Your task to perform on an android device: What's on my calendar tomorrow? Image 0: 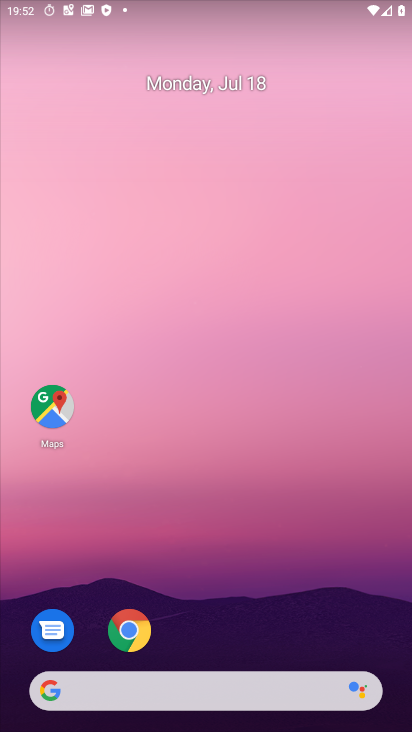
Step 0: drag from (222, 562) to (94, 56)
Your task to perform on an android device: What's on my calendar tomorrow? Image 1: 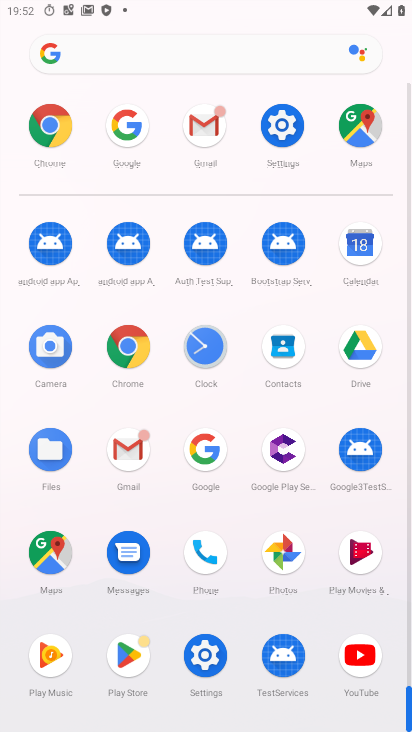
Step 1: click (360, 251)
Your task to perform on an android device: What's on my calendar tomorrow? Image 2: 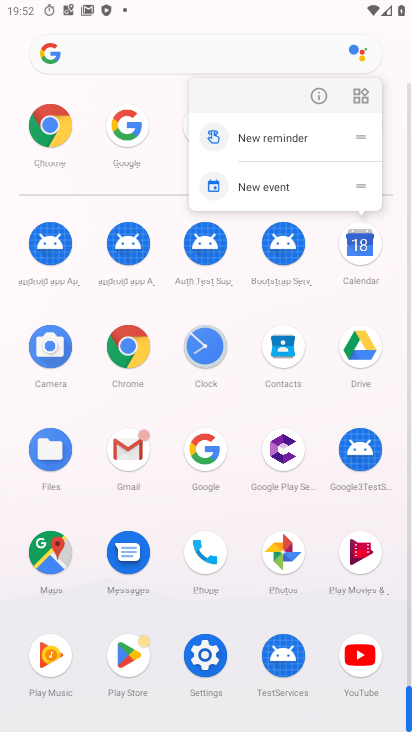
Step 2: click (360, 250)
Your task to perform on an android device: What's on my calendar tomorrow? Image 3: 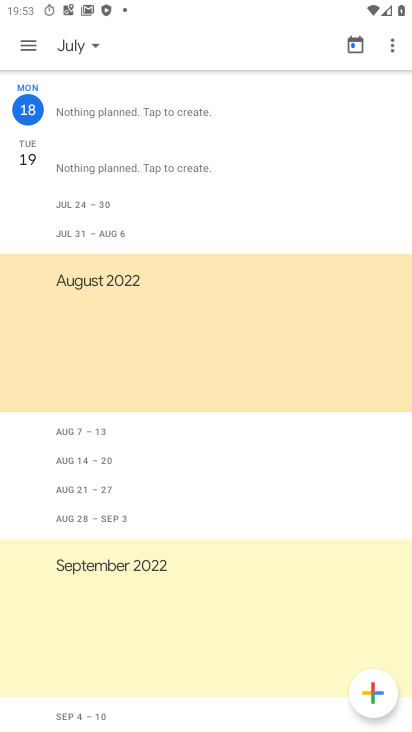
Step 3: click (69, 38)
Your task to perform on an android device: What's on my calendar tomorrow? Image 4: 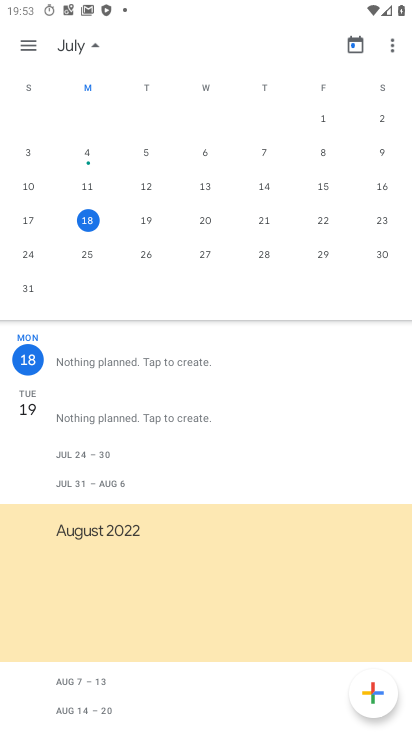
Step 4: click (145, 223)
Your task to perform on an android device: What's on my calendar tomorrow? Image 5: 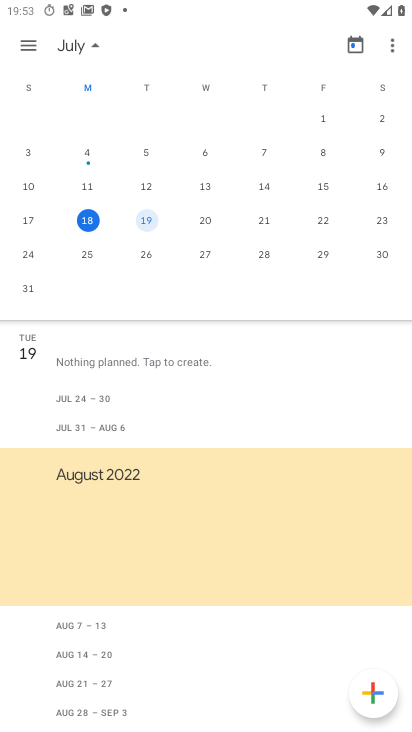
Step 5: task complete